Your task to perform on an android device: check android version Image 0: 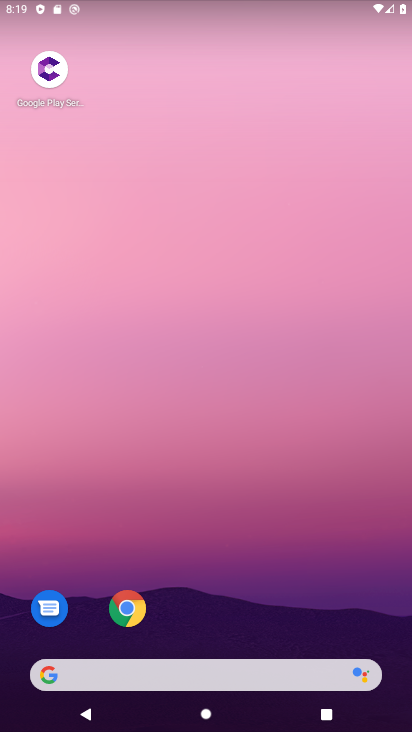
Step 0: drag from (352, 616) to (319, 159)
Your task to perform on an android device: check android version Image 1: 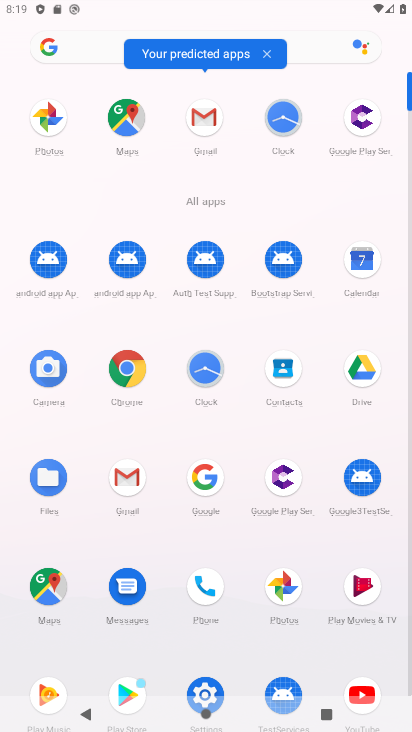
Step 1: click (410, 680)
Your task to perform on an android device: check android version Image 2: 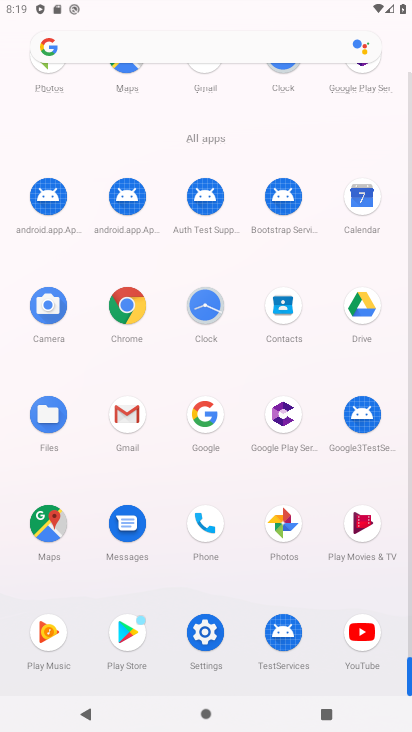
Step 2: click (206, 631)
Your task to perform on an android device: check android version Image 3: 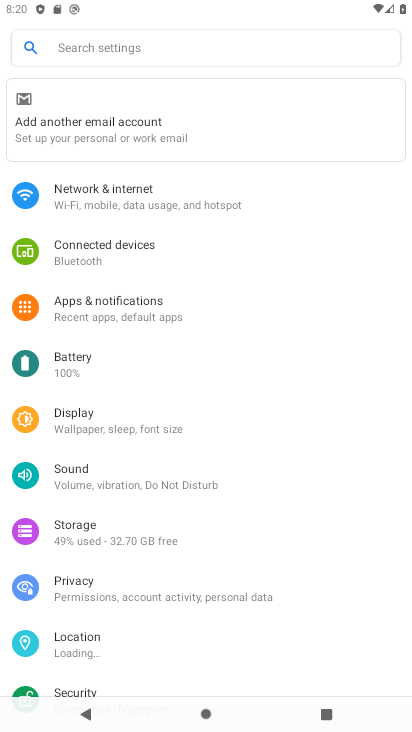
Step 3: drag from (281, 658) to (279, 241)
Your task to perform on an android device: check android version Image 4: 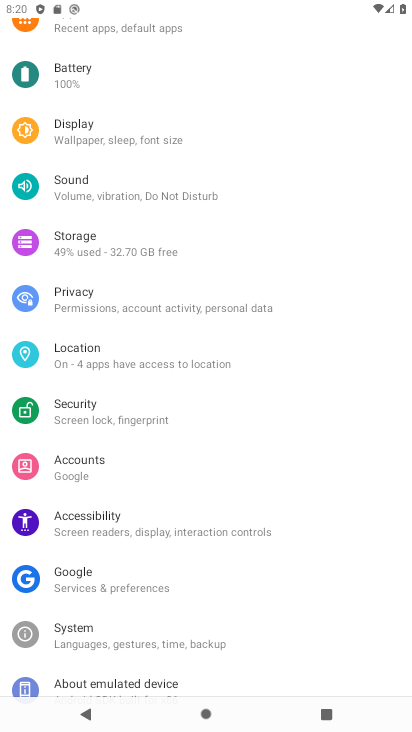
Step 4: drag from (304, 635) to (309, 251)
Your task to perform on an android device: check android version Image 5: 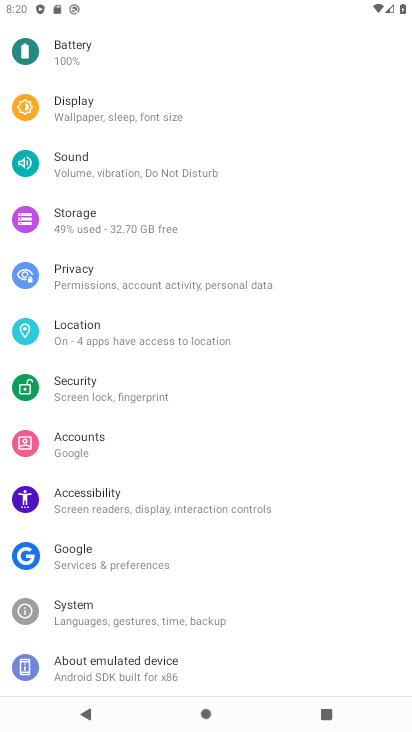
Step 5: click (95, 662)
Your task to perform on an android device: check android version Image 6: 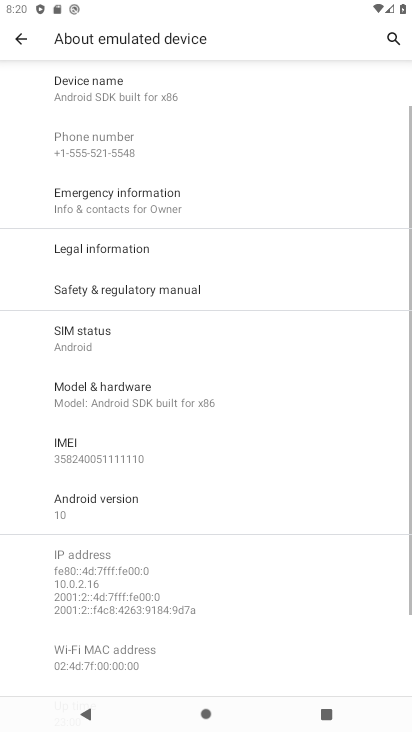
Step 6: drag from (258, 613) to (255, 461)
Your task to perform on an android device: check android version Image 7: 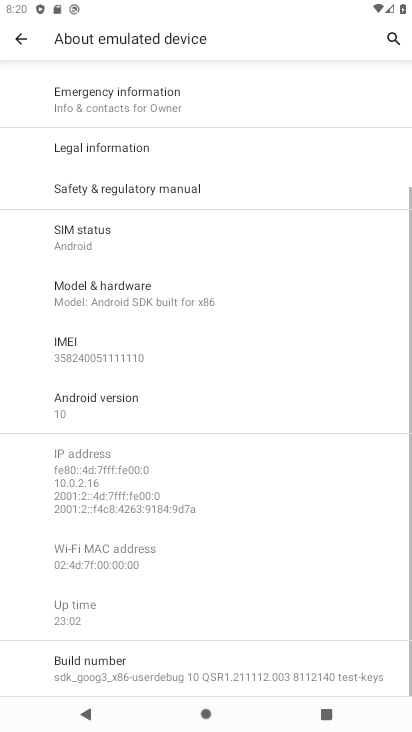
Step 7: click (76, 398)
Your task to perform on an android device: check android version Image 8: 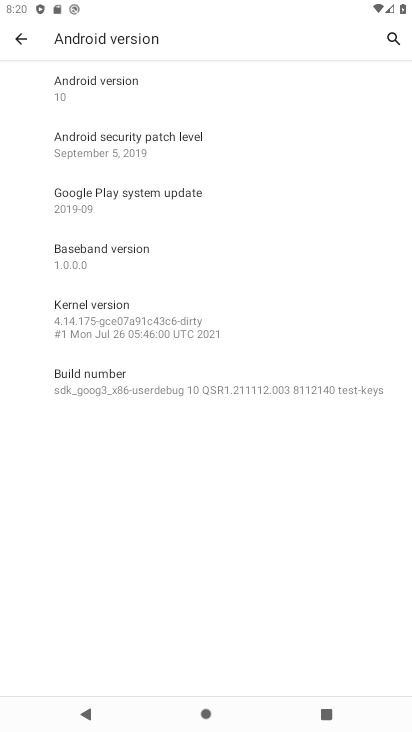
Step 8: click (69, 83)
Your task to perform on an android device: check android version Image 9: 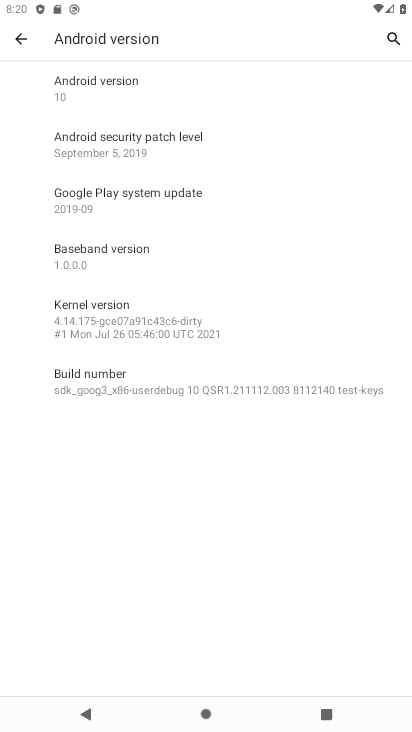
Step 9: task complete